Your task to perform on an android device: Clear the shopping cart on walmart.com. Image 0: 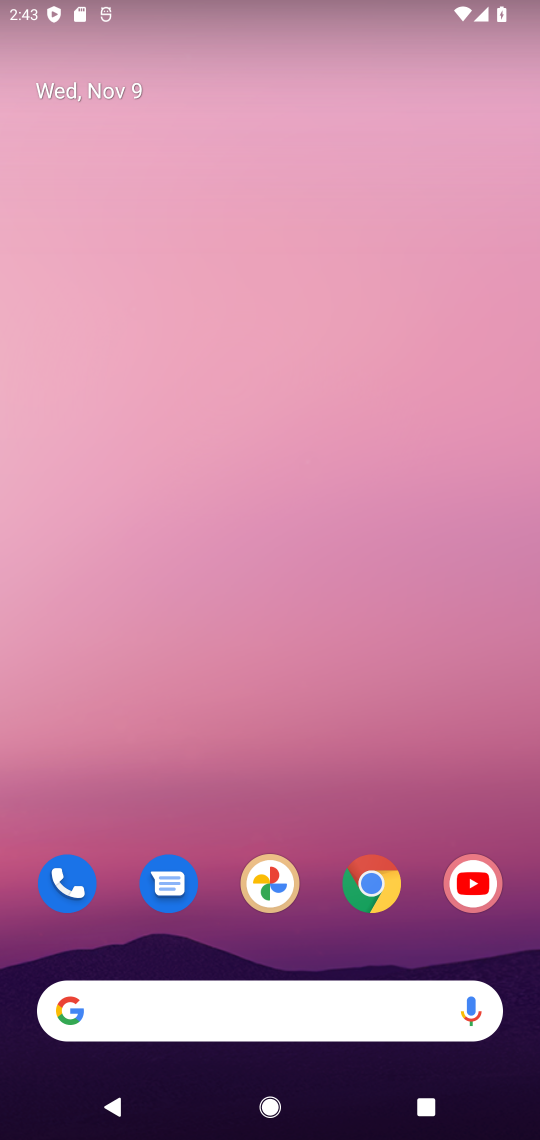
Step 0: click (380, 894)
Your task to perform on an android device: Clear the shopping cart on walmart.com. Image 1: 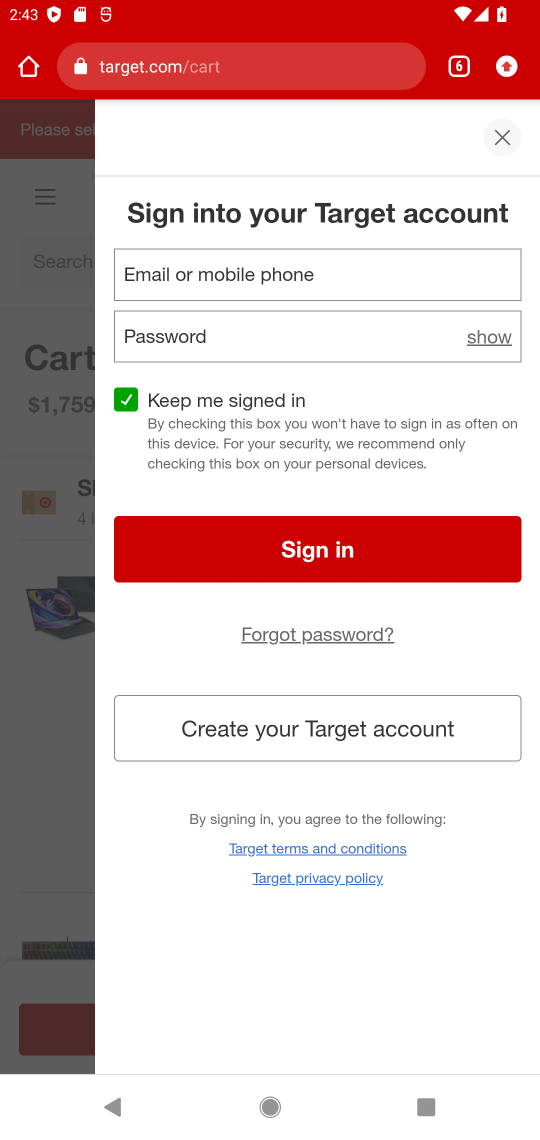
Step 1: click (461, 63)
Your task to perform on an android device: Clear the shopping cart on walmart.com. Image 2: 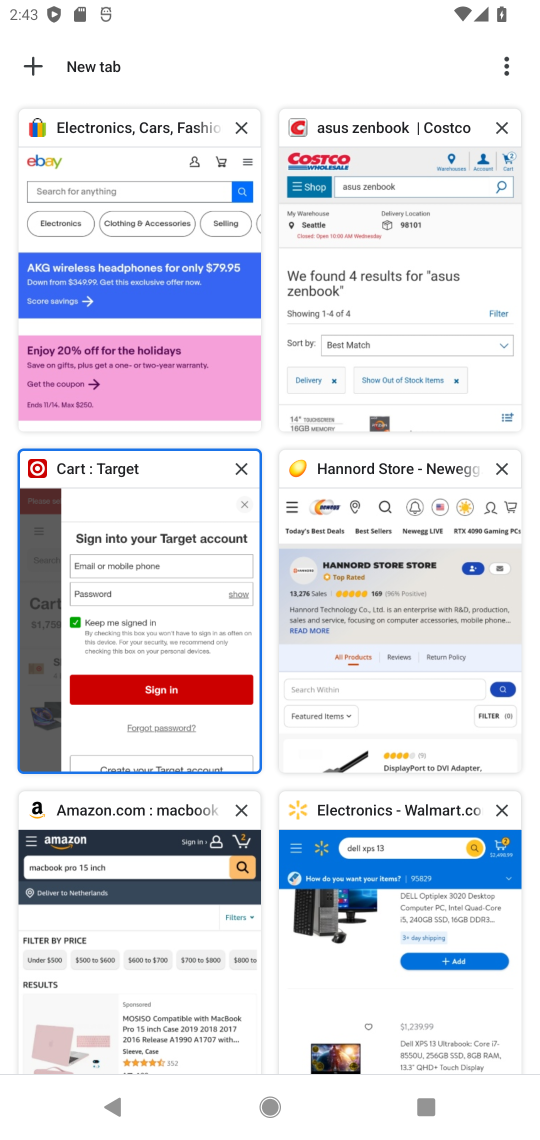
Step 2: click (409, 897)
Your task to perform on an android device: Clear the shopping cart on walmart.com. Image 3: 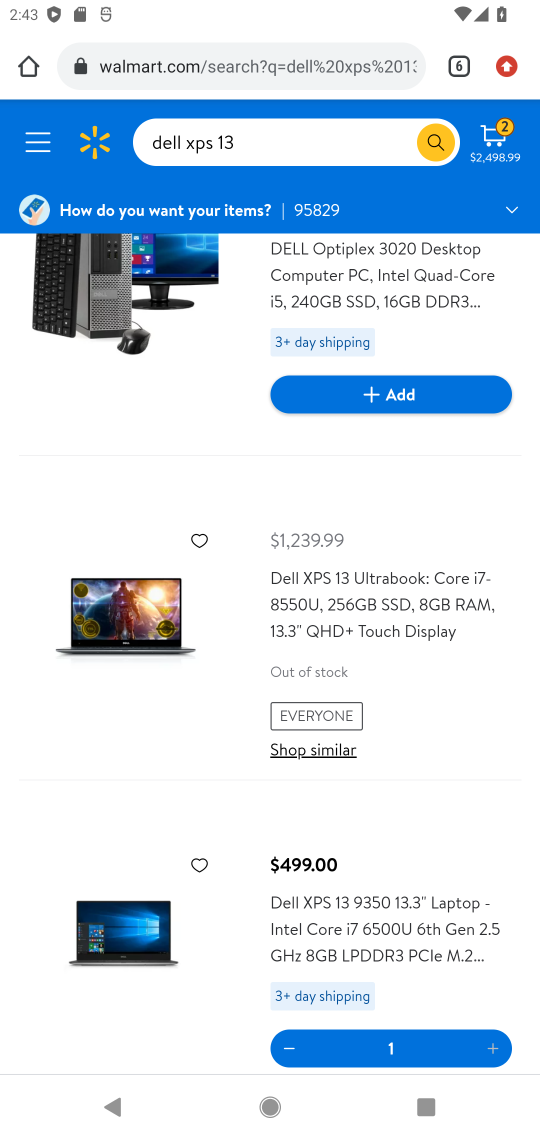
Step 3: click (409, 897)
Your task to perform on an android device: Clear the shopping cart on walmart.com. Image 4: 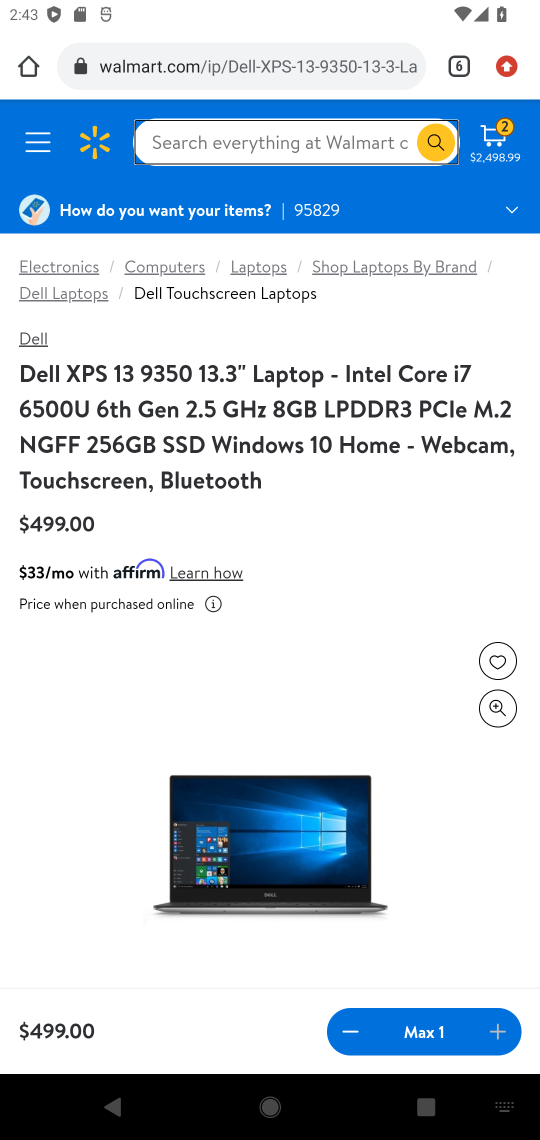
Step 4: click (510, 149)
Your task to perform on an android device: Clear the shopping cart on walmart.com. Image 5: 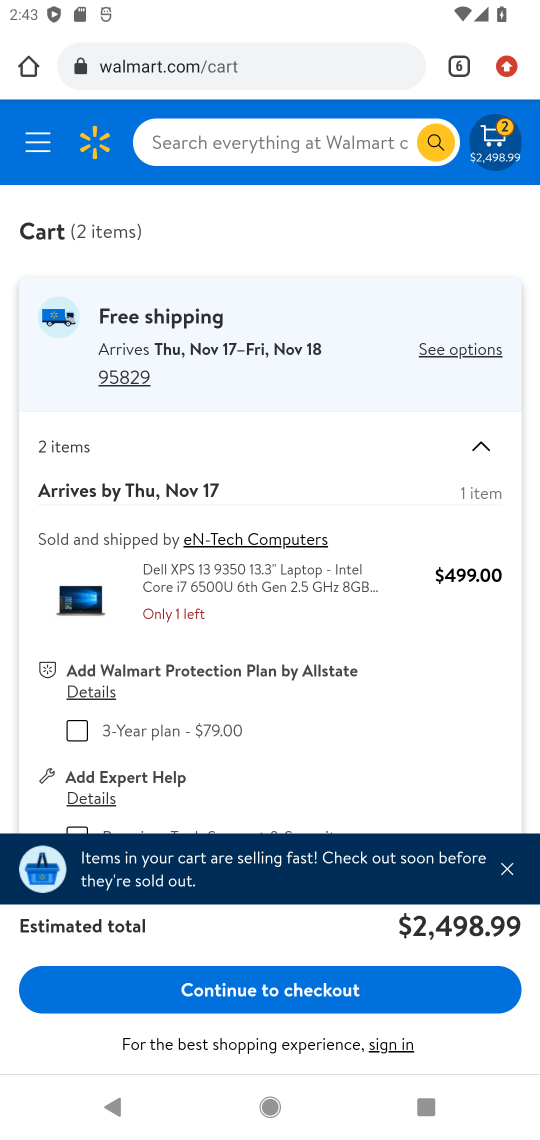
Step 5: drag from (358, 739) to (470, 373)
Your task to perform on an android device: Clear the shopping cart on walmart.com. Image 6: 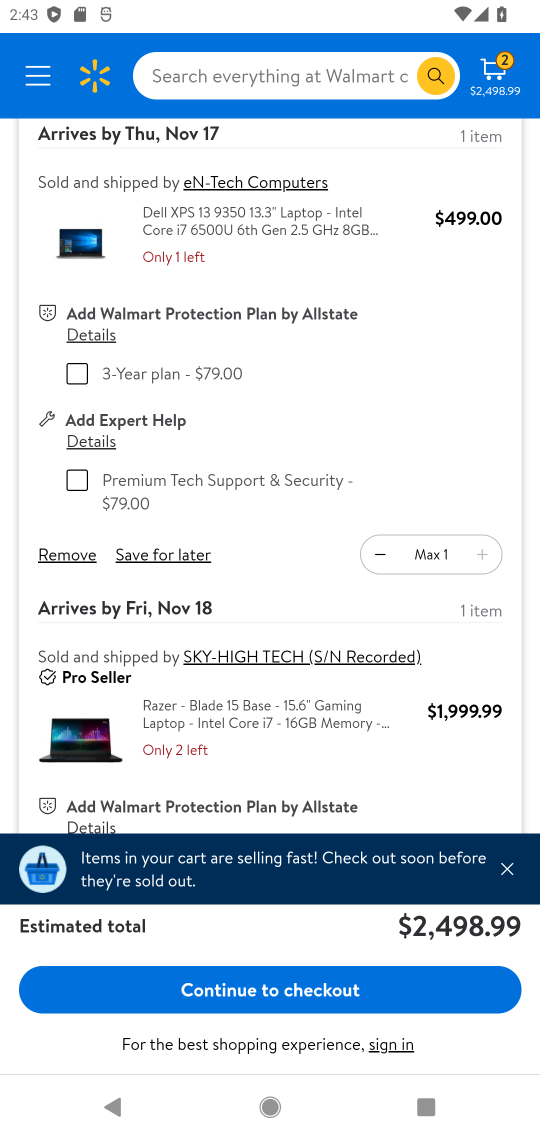
Step 6: click (68, 554)
Your task to perform on an android device: Clear the shopping cart on walmart.com. Image 7: 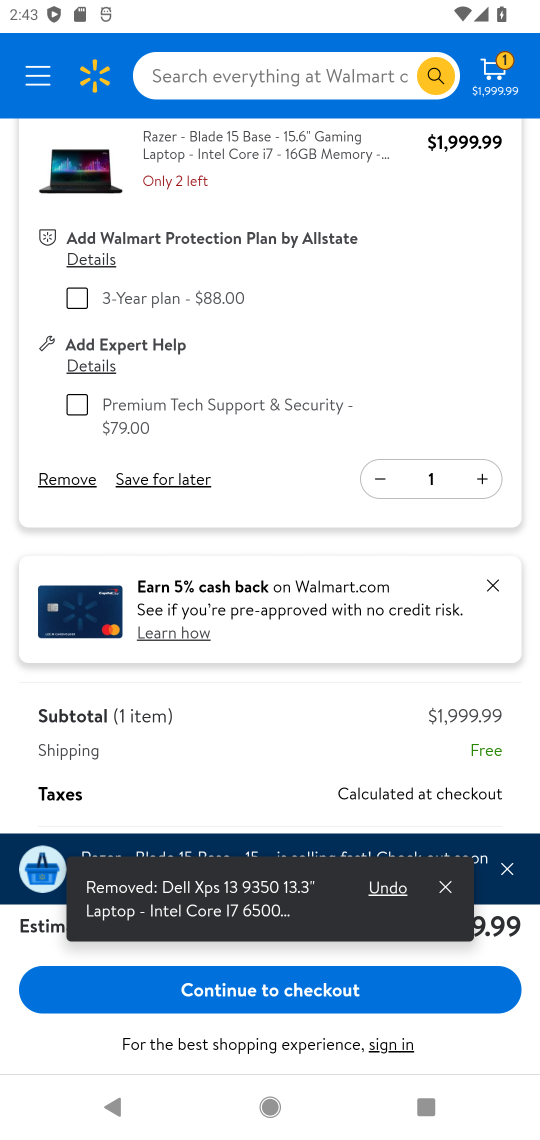
Step 7: click (65, 483)
Your task to perform on an android device: Clear the shopping cart on walmart.com. Image 8: 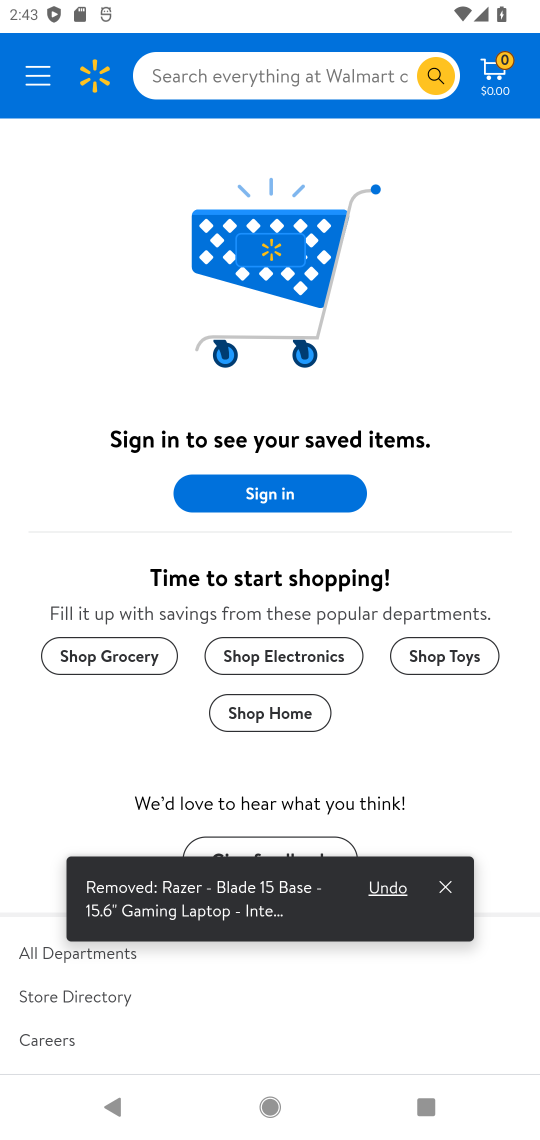
Step 8: task complete